Your task to perform on an android device: refresh tabs in the chrome app Image 0: 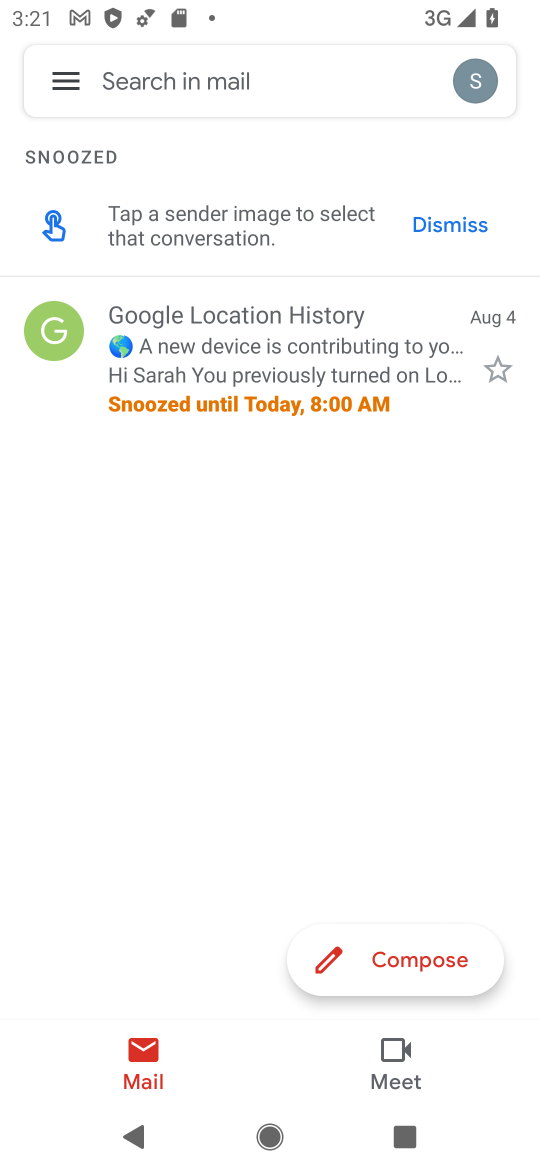
Step 0: press home button
Your task to perform on an android device: refresh tabs in the chrome app Image 1: 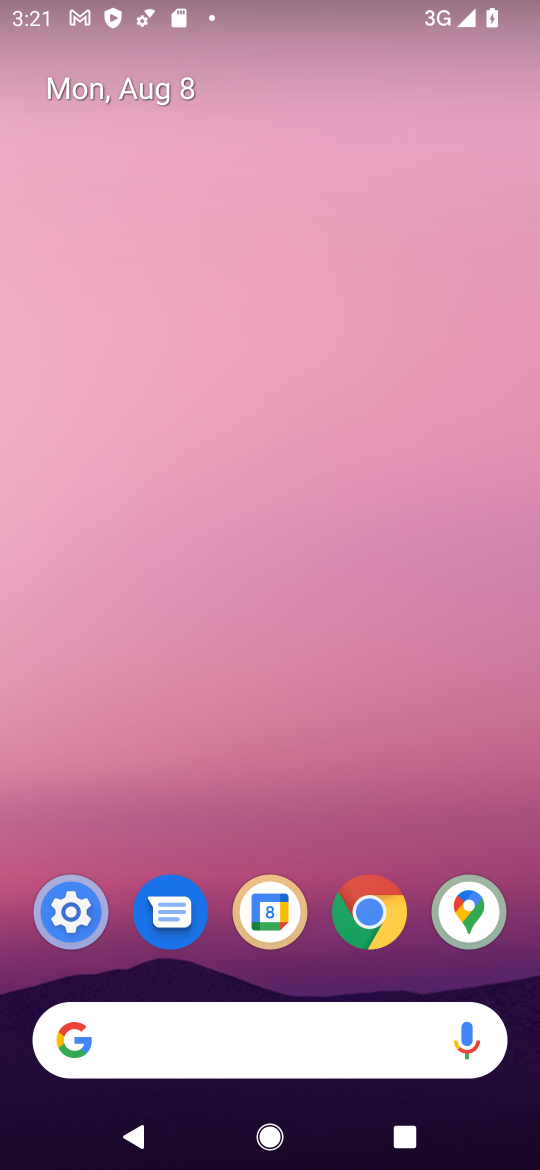
Step 1: click (369, 908)
Your task to perform on an android device: refresh tabs in the chrome app Image 2: 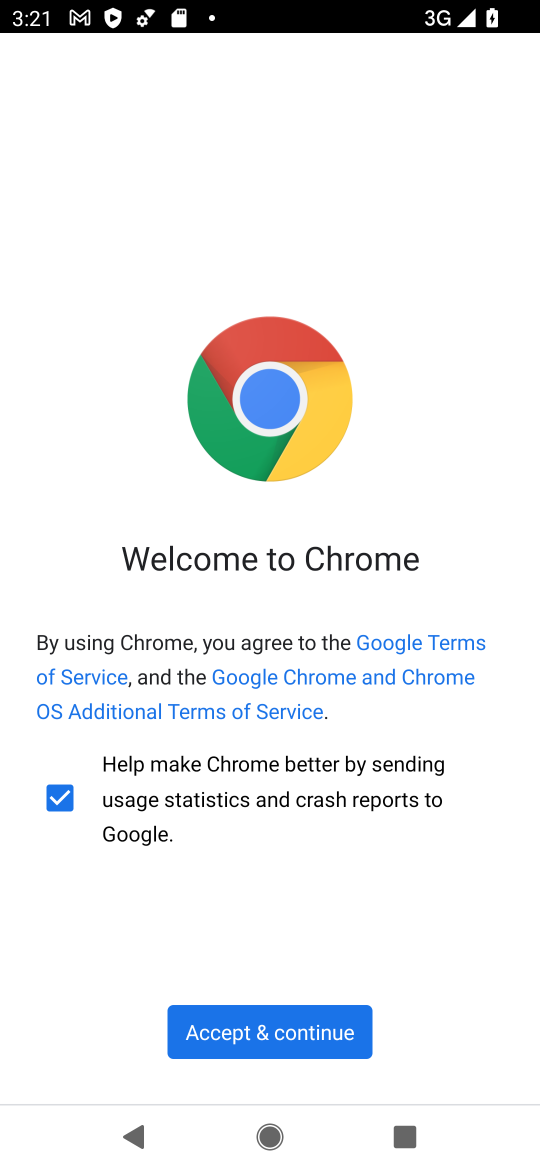
Step 2: click (303, 1027)
Your task to perform on an android device: refresh tabs in the chrome app Image 3: 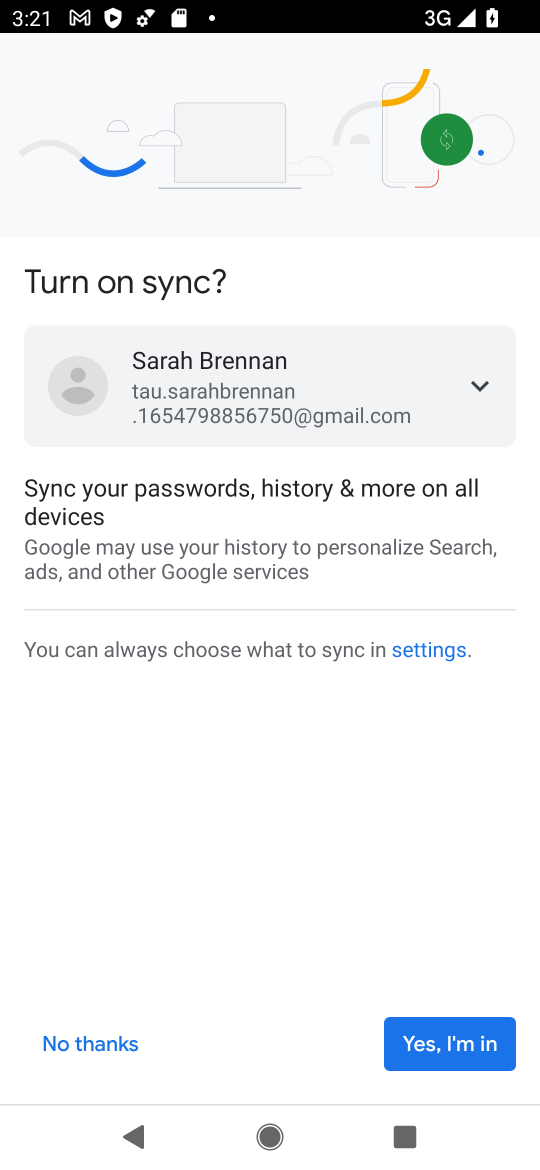
Step 3: click (112, 1040)
Your task to perform on an android device: refresh tabs in the chrome app Image 4: 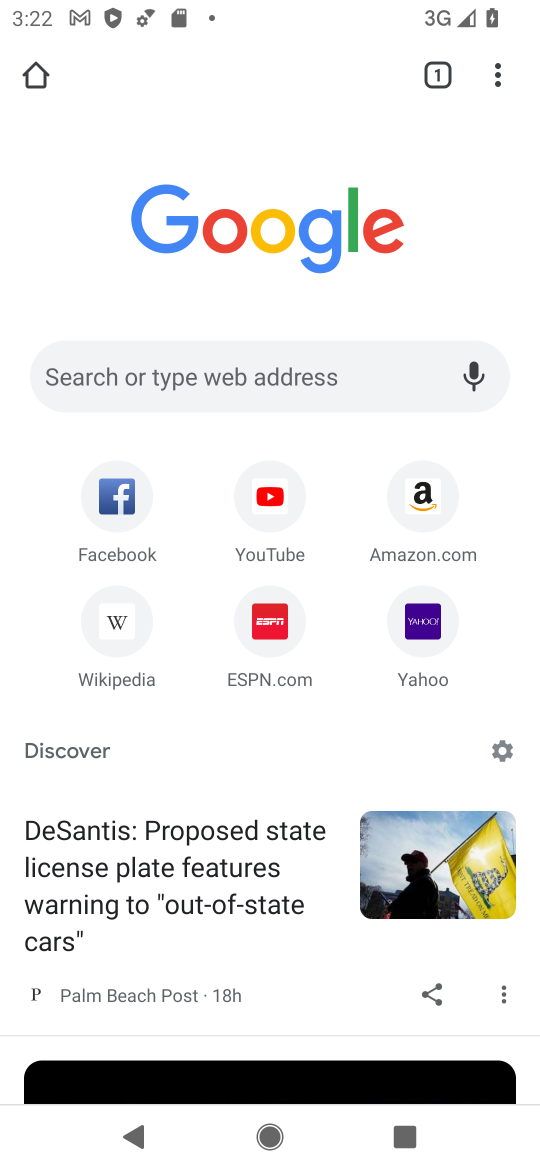
Step 4: click (501, 78)
Your task to perform on an android device: refresh tabs in the chrome app Image 5: 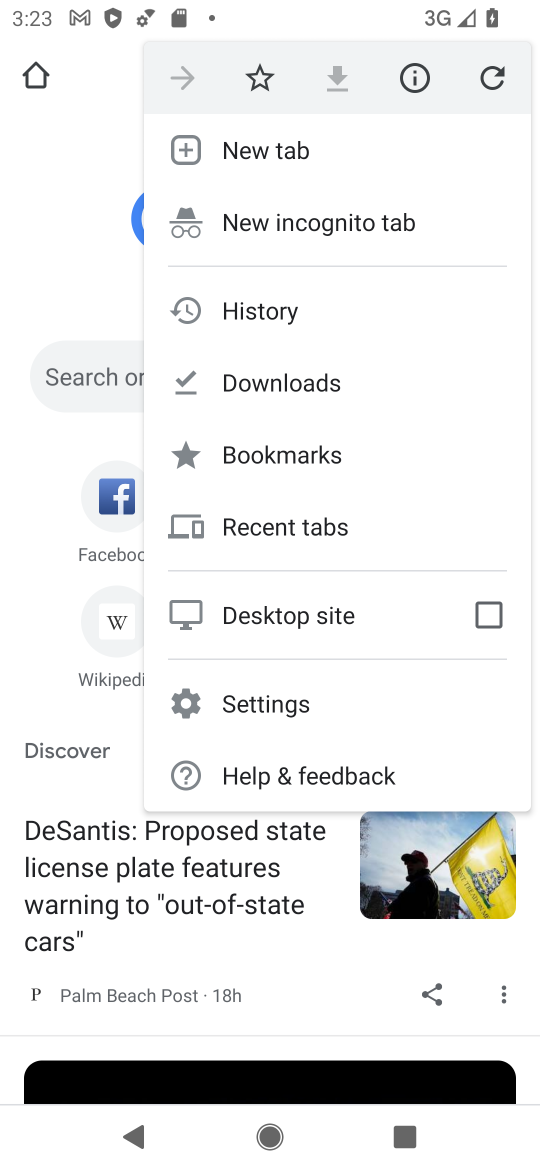
Step 5: click (489, 71)
Your task to perform on an android device: refresh tabs in the chrome app Image 6: 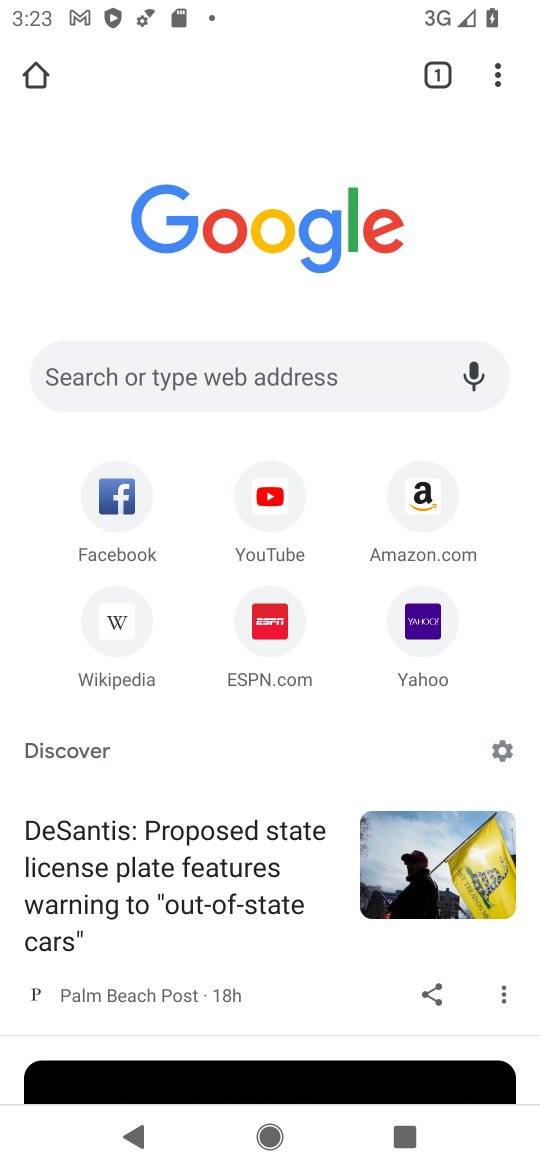
Step 6: task complete